Your task to perform on an android device: toggle priority inbox in the gmail app Image 0: 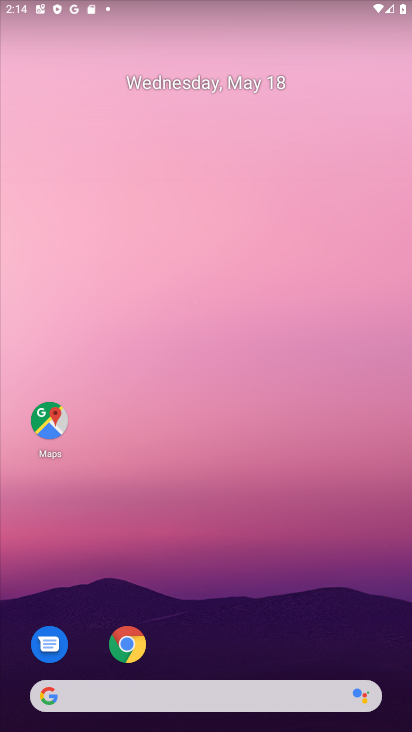
Step 0: drag from (255, 625) to (195, 154)
Your task to perform on an android device: toggle priority inbox in the gmail app Image 1: 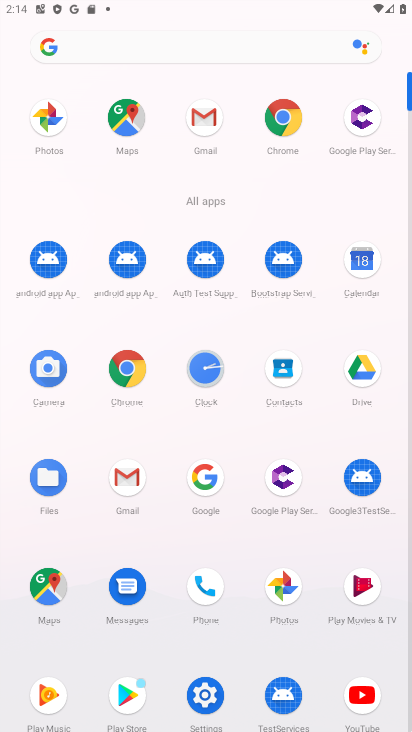
Step 1: click (204, 115)
Your task to perform on an android device: toggle priority inbox in the gmail app Image 2: 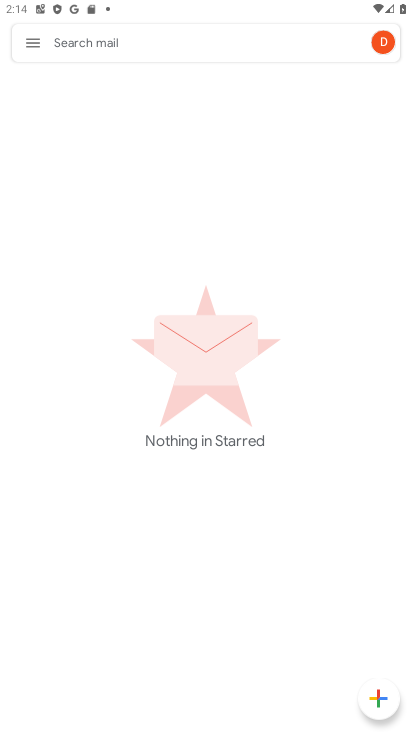
Step 2: click (29, 38)
Your task to perform on an android device: toggle priority inbox in the gmail app Image 3: 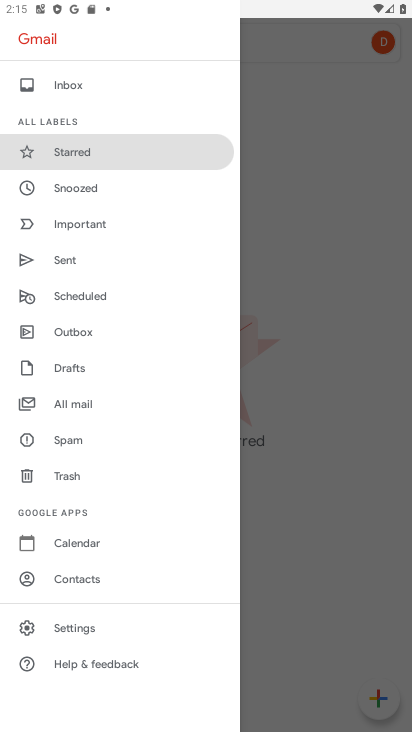
Step 3: drag from (95, 453) to (101, 365)
Your task to perform on an android device: toggle priority inbox in the gmail app Image 4: 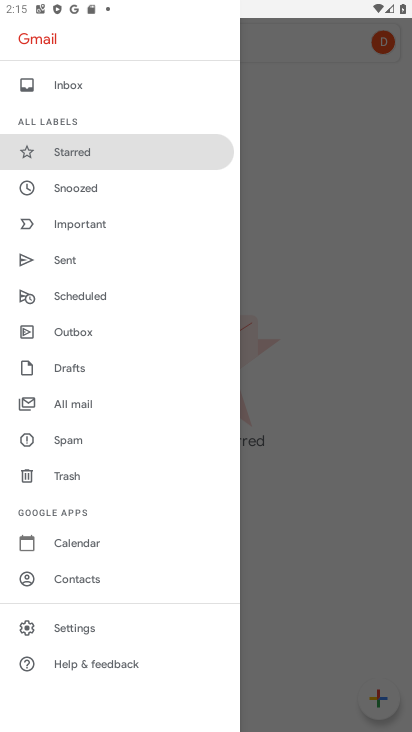
Step 4: click (83, 625)
Your task to perform on an android device: toggle priority inbox in the gmail app Image 5: 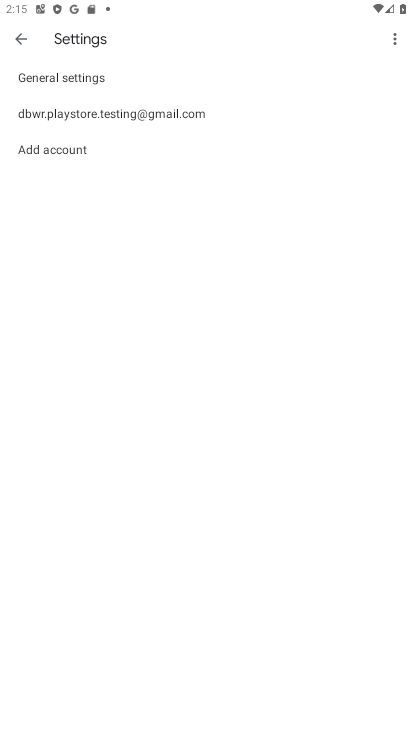
Step 5: click (195, 114)
Your task to perform on an android device: toggle priority inbox in the gmail app Image 6: 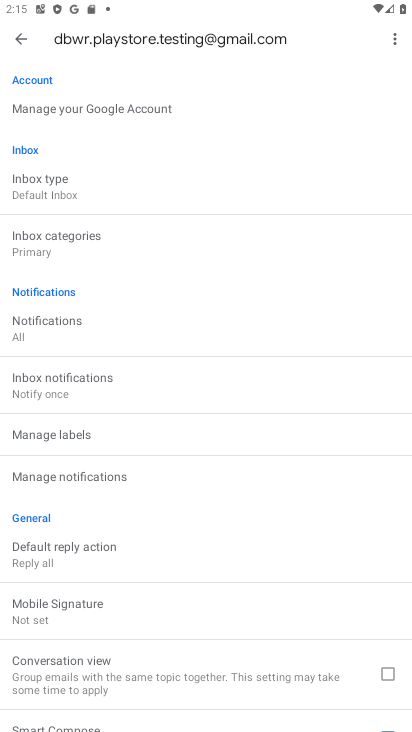
Step 6: click (70, 188)
Your task to perform on an android device: toggle priority inbox in the gmail app Image 7: 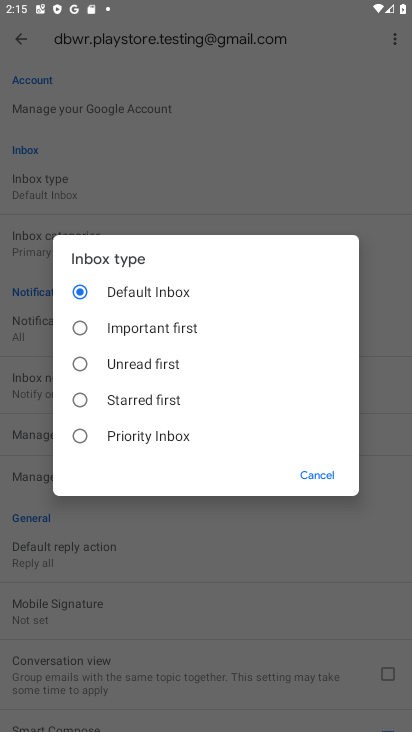
Step 7: click (83, 434)
Your task to perform on an android device: toggle priority inbox in the gmail app Image 8: 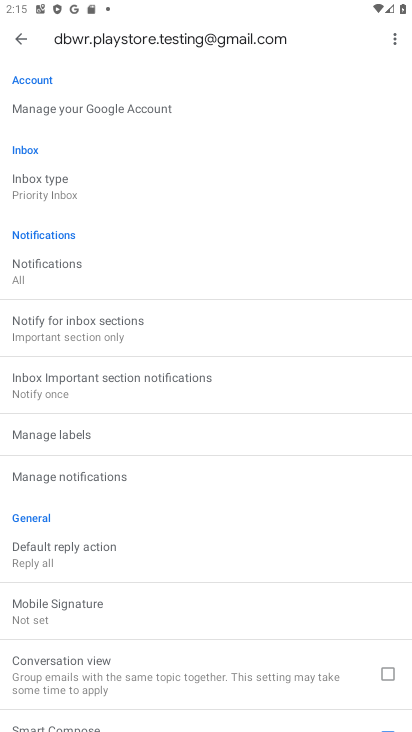
Step 8: task complete